Your task to perform on an android device: Show the shopping cart on bestbuy. Search for usb-c to usb-a on bestbuy, select the first entry, add it to the cart, then select checkout. Image 0: 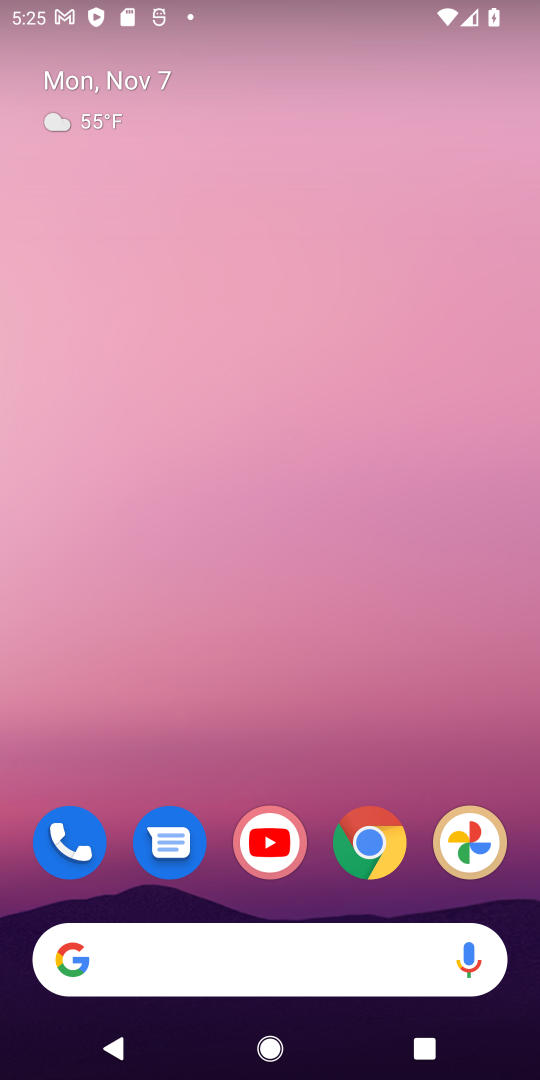
Step 0: click (381, 844)
Your task to perform on an android device: Show the shopping cart on bestbuy. Search for usb-c to usb-a on bestbuy, select the first entry, add it to the cart, then select checkout. Image 1: 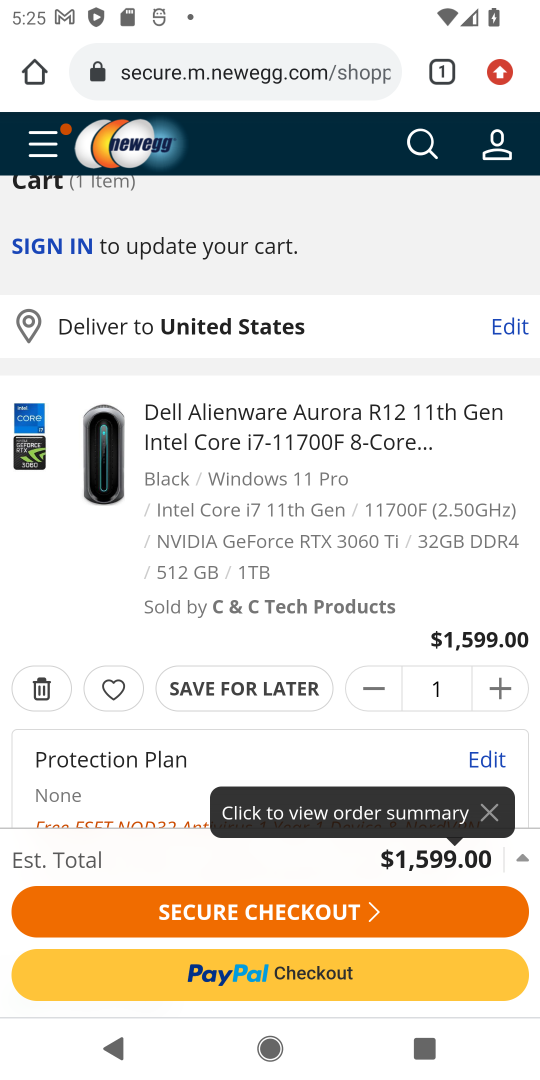
Step 1: click (329, 71)
Your task to perform on an android device: Show the shopping cart on bestbuy. Search for usb-c to usb-a on bestbuy, select the first entry, add it to the cart, then select checkout. Image 2: 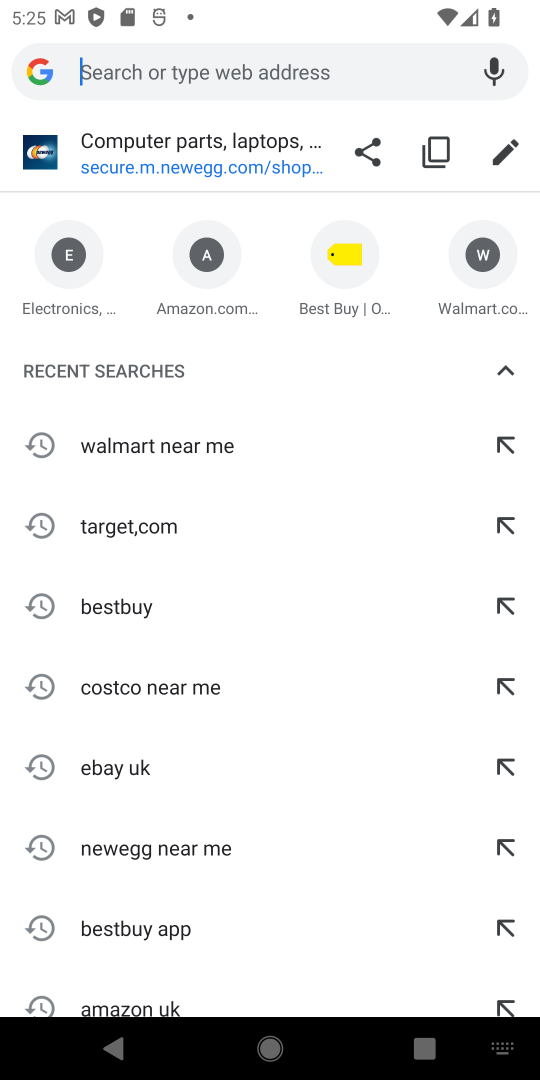
Step 2: click (121, 604)
Your task to perform on an android device: Show the shopping cart on bestbuy. Search for usb-c to usb-a on bestbuy, select the first entry, add it to the cart, then select checkout. Image 3: 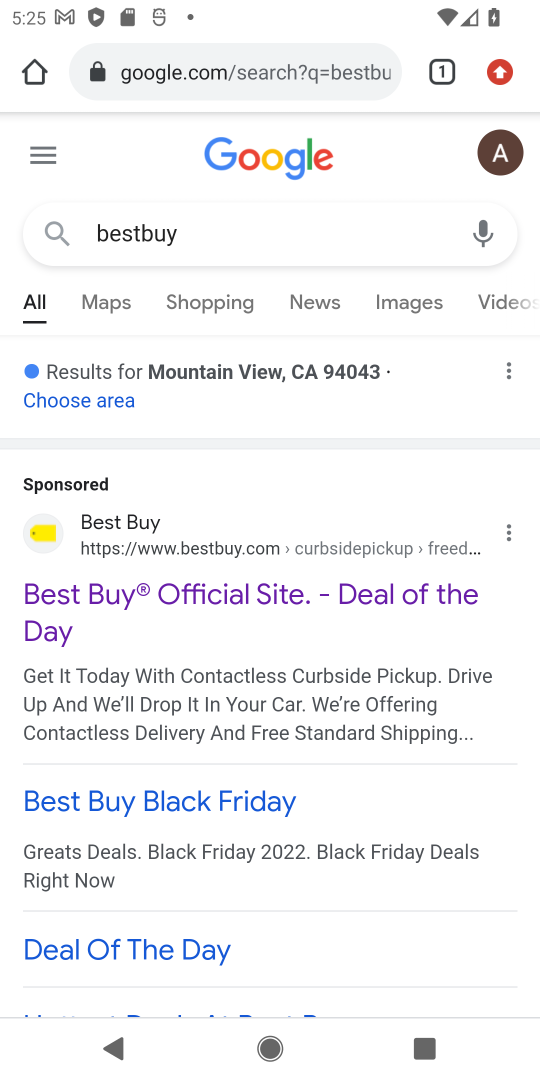
Step 3: click (170, 596)
Your task to perform on an android device: Show the shopping cart on bestbuy. Search for usb-c to usb-a on bestbuy, select the first entry, add it to the cart, then select checkout. Image 4: 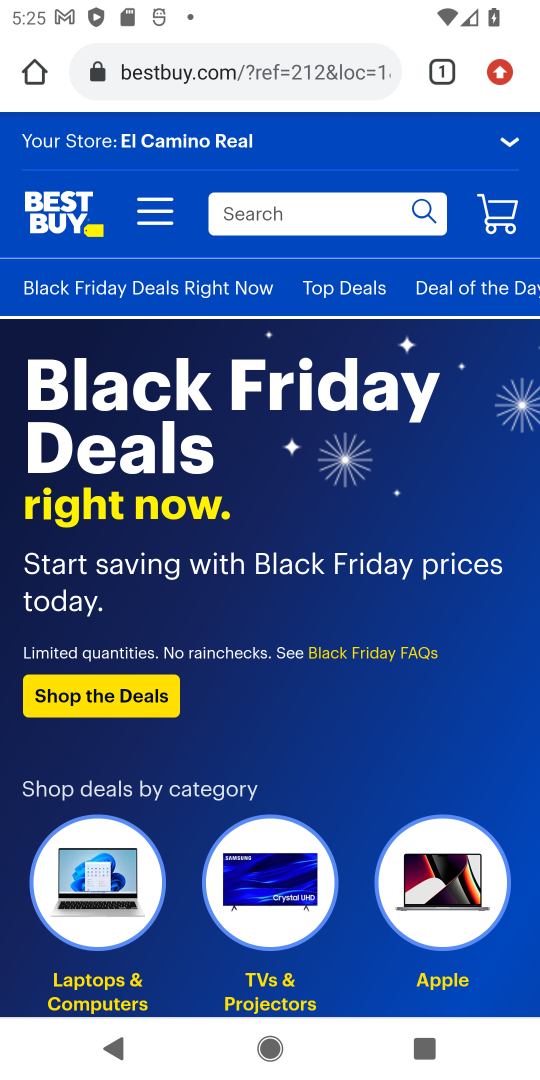
Step 4: click (352, 214)
Your task to perform on an android device: Show the shopping cart on bestbuy. Search for usb-c to usb-a on bestbuy, select the first entry, add it to the cart, then select checkout. Image 5: 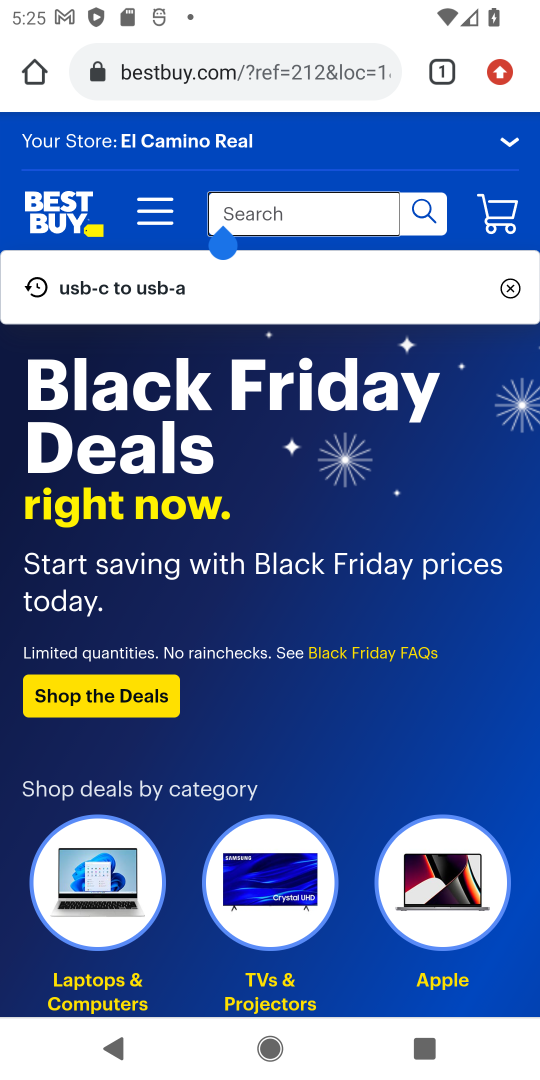
Step 5: click (247, 213)
Your task to perform on an android device: Show the shopping cart on bestbuy. Search for usb-c to usb-a on bestbuy, select the first entry, add it to the cart, then select checkout. Image 6: 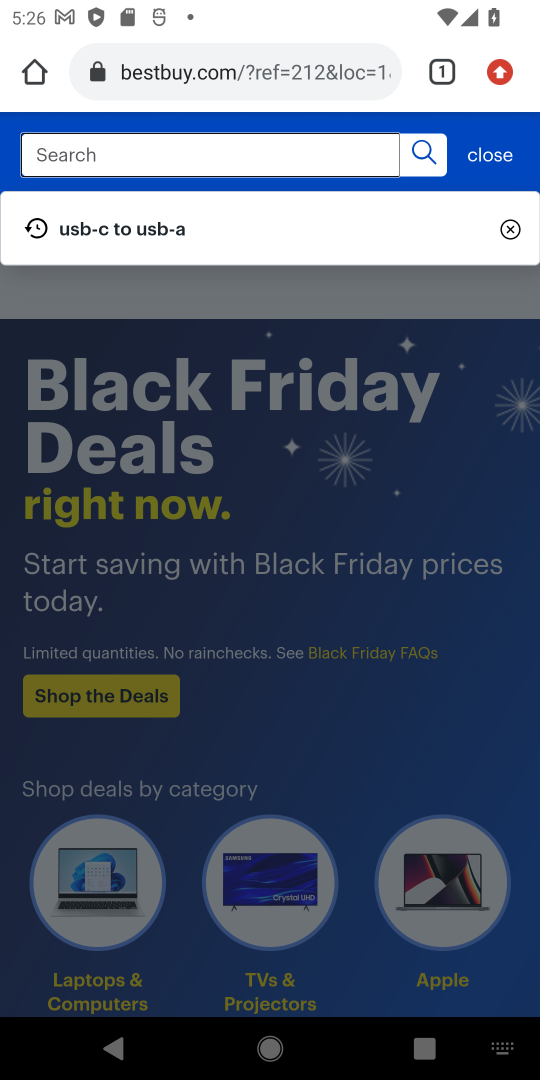
Step 6: type "usb-c to usb-a"
Your task to perform on an android device: Show the shopping cart on bestbuy. Search for usb-c to usb-a on bestbuy, select the first entry, add it to the cart, then select checkout. Image 7: 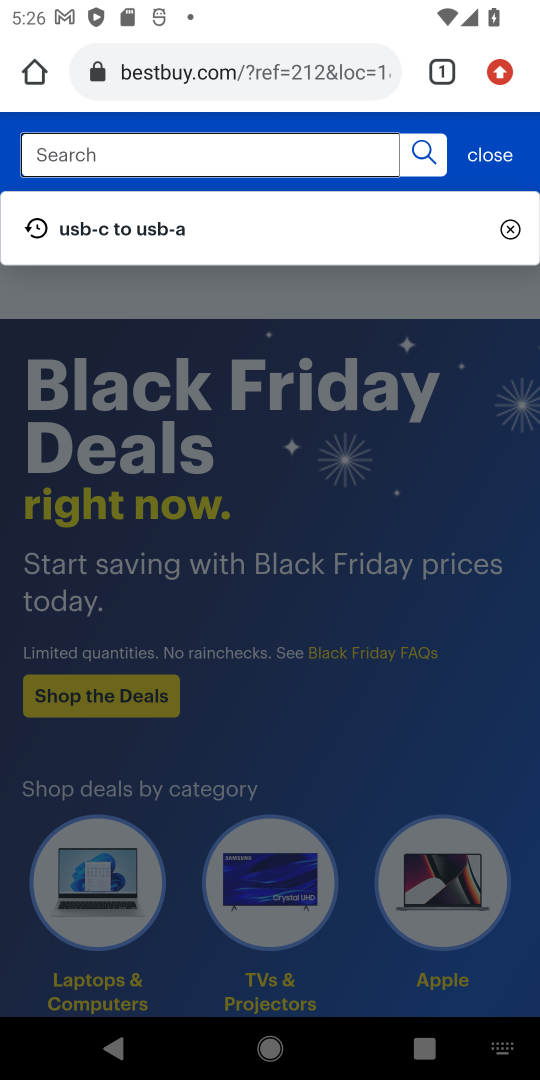
Step 7: press enter
Your task to perform on an android device: Show the shopping cart on bestbuy. Search for usb-c to usb-a on bestbuy, select the first entry, add it to the cart, then select checkout. Image 8: 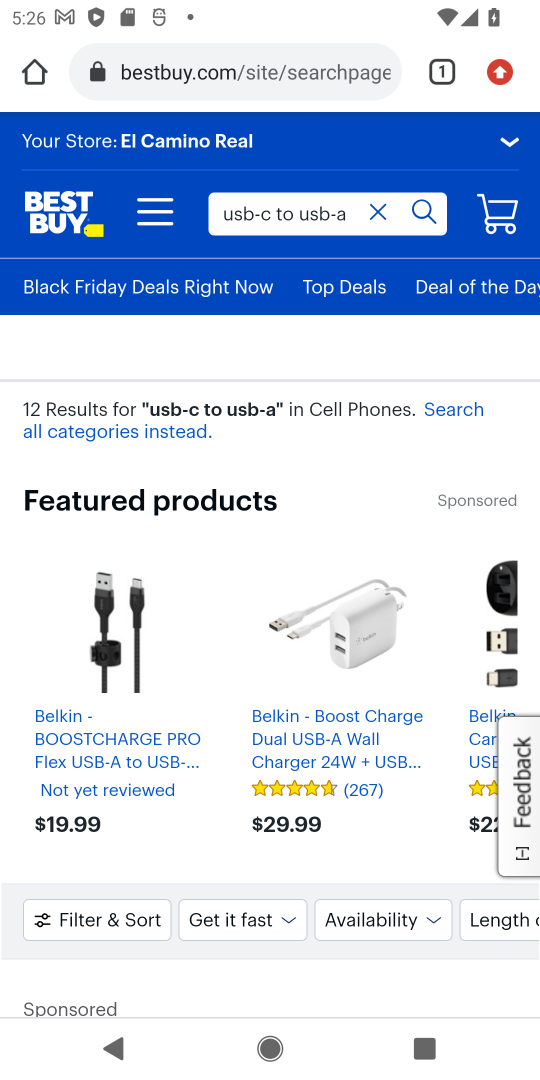
Step 8: drag from (256, 898) to (389, 542)
Your task to perform on an android device: Show the shopping cart on bestbuy. Search for usb-c to usb-a on bestbuy, select the first entry, add it to the cart, then select checkout. Image 9: 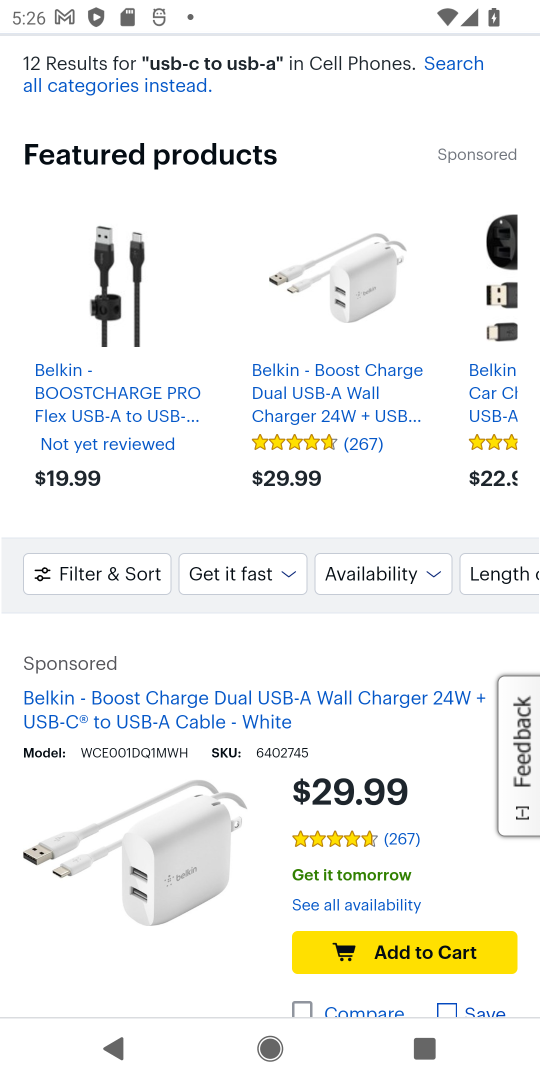
Step 9: click (402, 954)
Your task to perform on an android device: Show the shopping cart on bestbuy. Search for usb-c to usb-a on bestbuy, select the first entry, add it to the cart, then select checkout. Image 10: 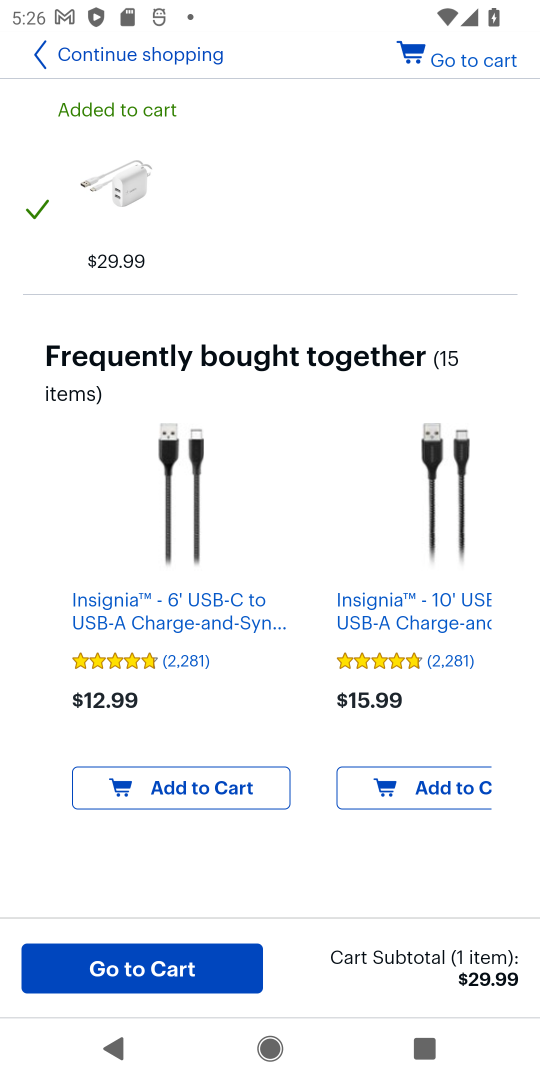
Step 10: click (455, 55)
Your task to perform on an android device: Show the shopping cart on bestbuy. Search for usb-c to usb-a on bestbuy, select the first entry, add it to the cart, then select checkout. Image 11: 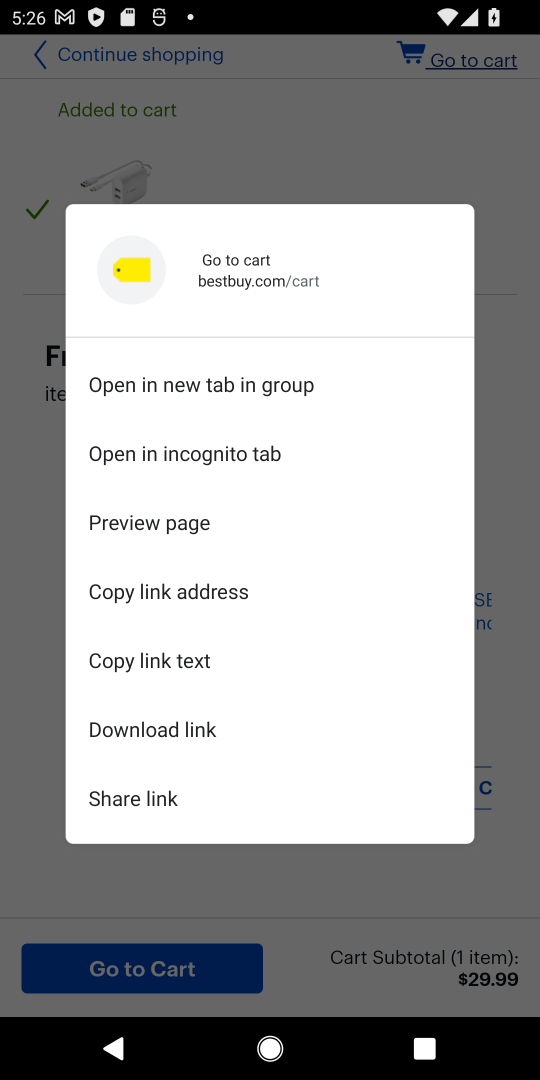
Step 11: click (470, 57)
Your task to perform on an android device: Show the shopping cart on bestbuy. Search for usb-c to usb-a on bestbuy, select the first entry, add it to the cart, then select checkout. Image 12: 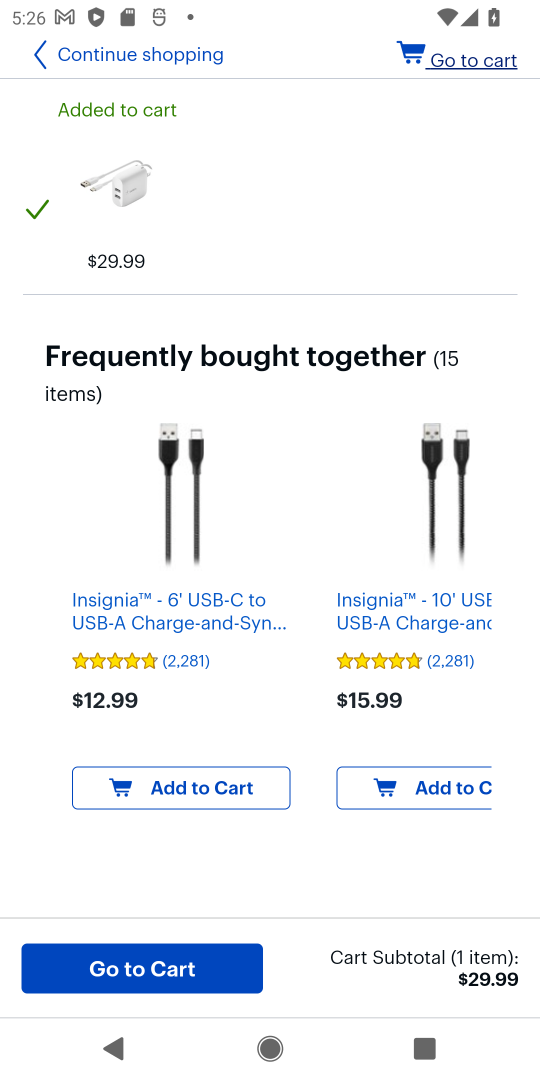
Step 12: click (470, 58)
Your task to perform on an android device: Show the shopping cart on bestbuy. Search for usb-c to usb-a on bestbuy, select the first entry, add it to the cart, then select checkout. Image 13: 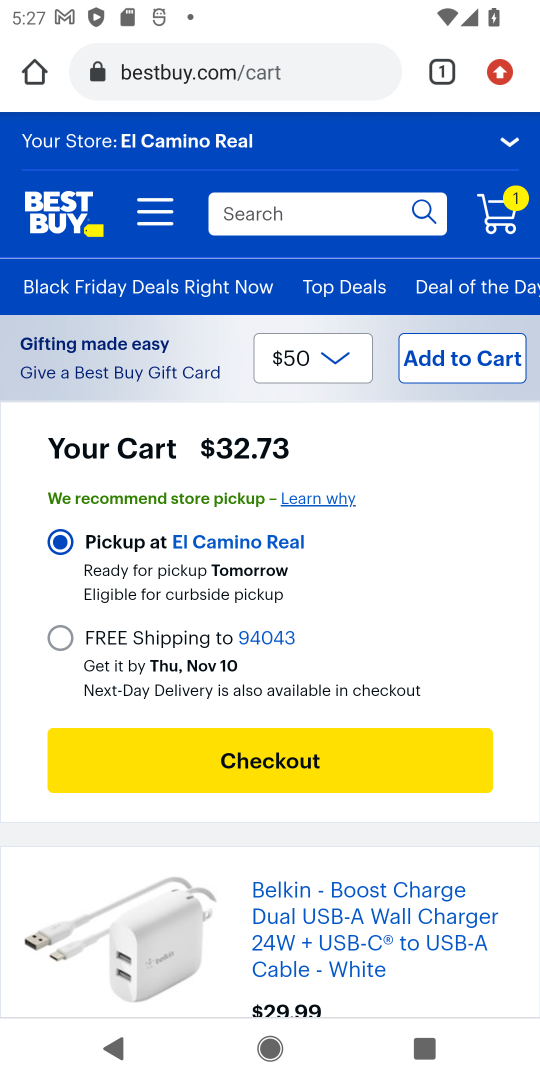
Step 13: drag from (266, 867) to (383, 556)
Your task to perform on an android device: Show the shopping cart on bestbuy. Search for usb-c to usb-a on bestbuy, select the first entry, add it to the cart, then select checkout. Image 14: 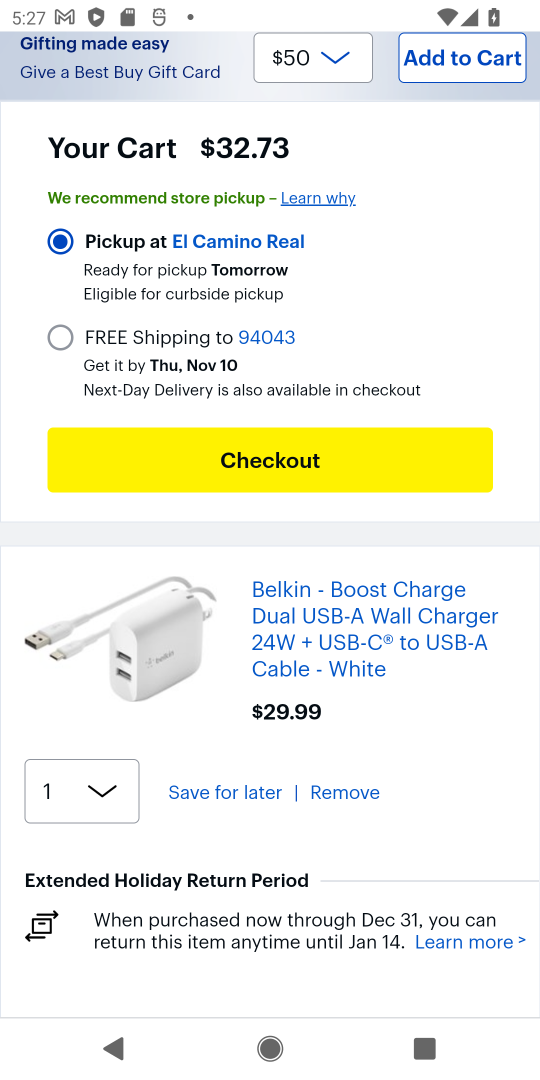
Step 14: click (269, 460)
Your task to perform on an android device: Show the shopping cart on bestbuy. Search for usb-c to usb-a on bestbuy, select the first entry, add it to the cart, then select checkout. Image 15: 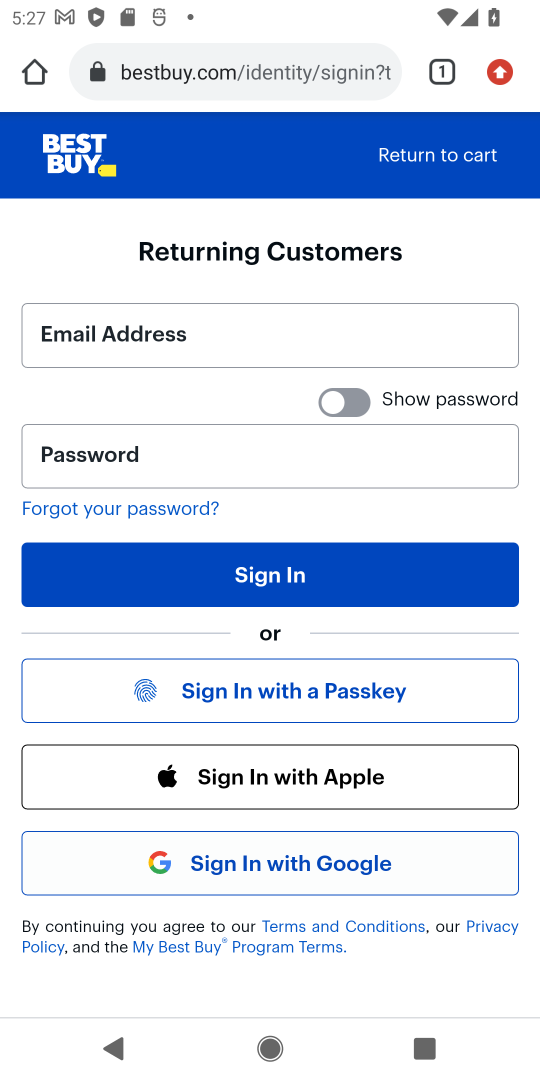
Step 15: task complete